Your task to perform on an android device: Empty the shopping cart on bestbuy. Search for usb-c to usb-a on bestbuy, select the first entry, and add it to the cart. Image 0: 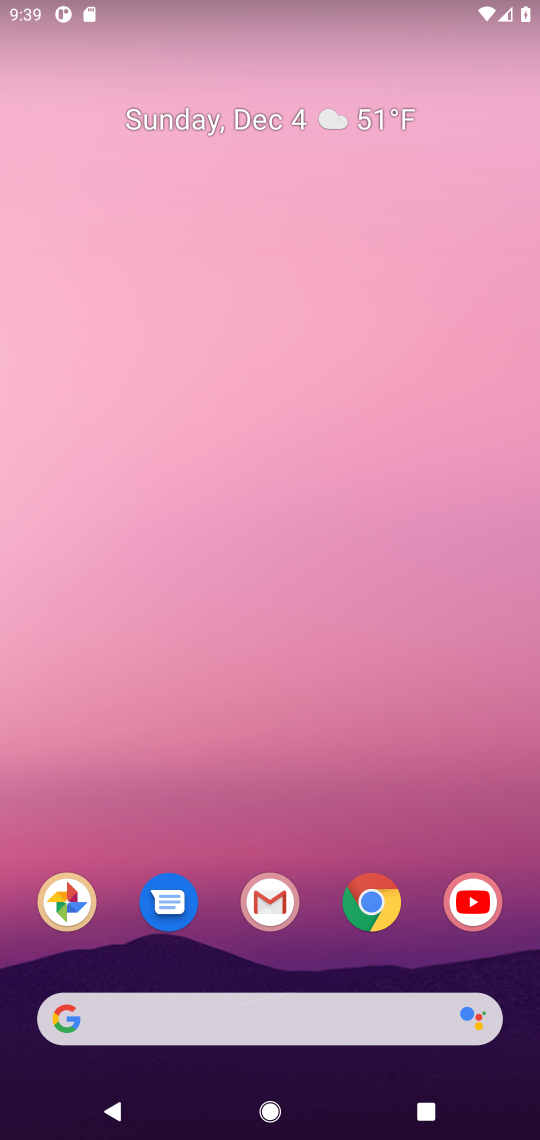
Step 0: click (369, 907)
Your task to perform on an android device: Empty the shopping cart on bestbuy. Search for usb-c to usb-a on bestbuy, select the first entry, and add it to the cart. Image 1: 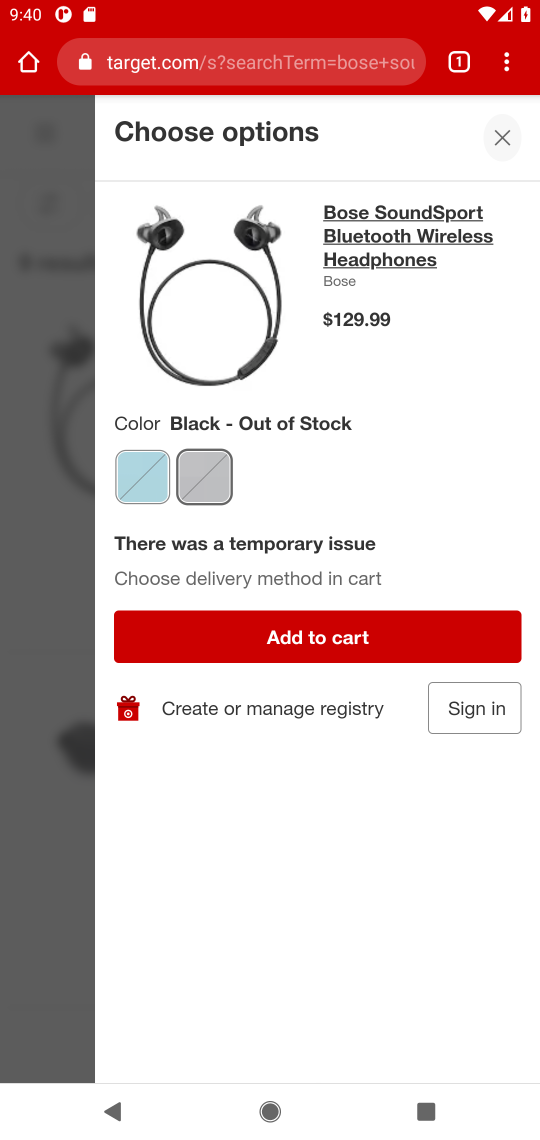
Step 1: task complete